Your task to perform on an android device: What's the weather today? Image 0: 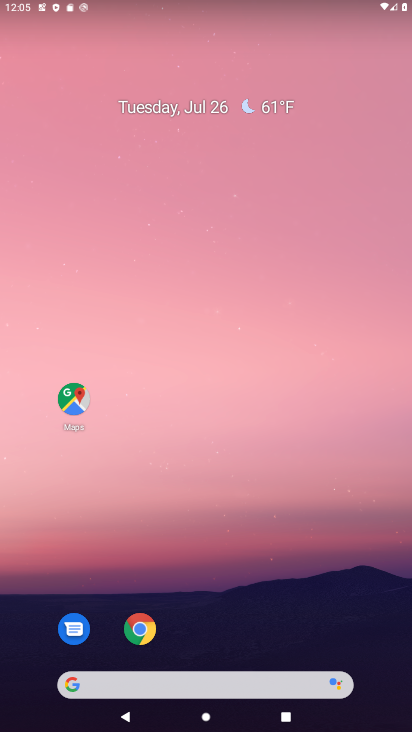
Step 0: drag from (205, 641) to (221, 194)
Your task to perform on an android device: What's the weather today? Image 1: 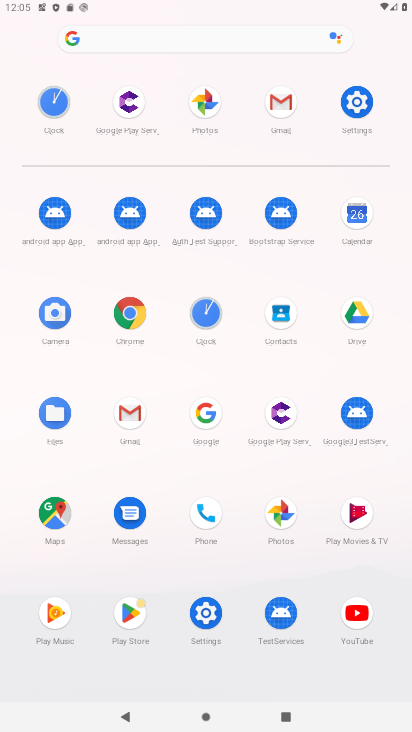
Step 1: click (220, 417)
Your task to perform on an android device: What's the weather today? Image 2: 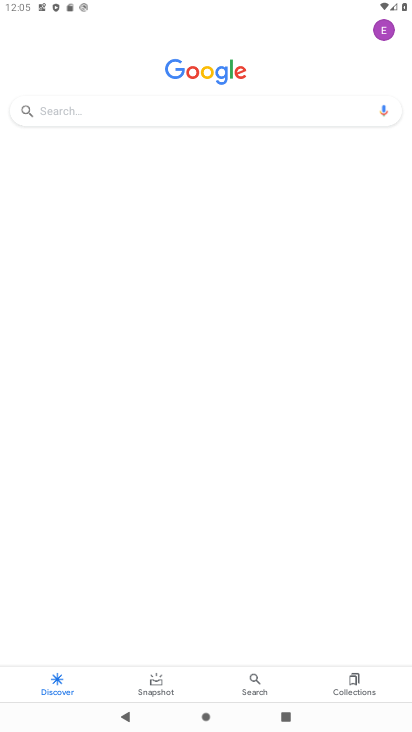
Step 2: click (120, 107)
Your task to perform on an android device: What's the weather today? Image 3: 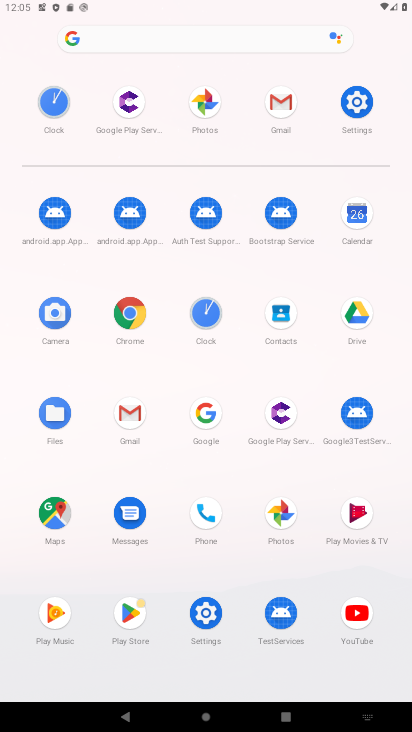
Step 3: click (73, 83)
Your task to perform on an android device: What's the weather today? Image 4: 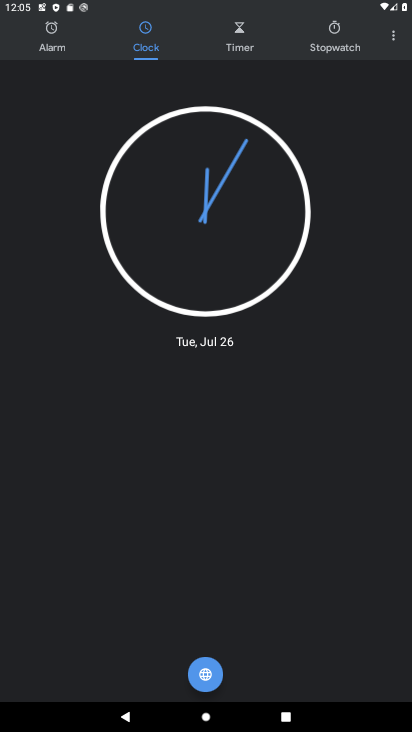
Step 4: press home button
Your task to perform on an android device: What's the weather today? Image 5: 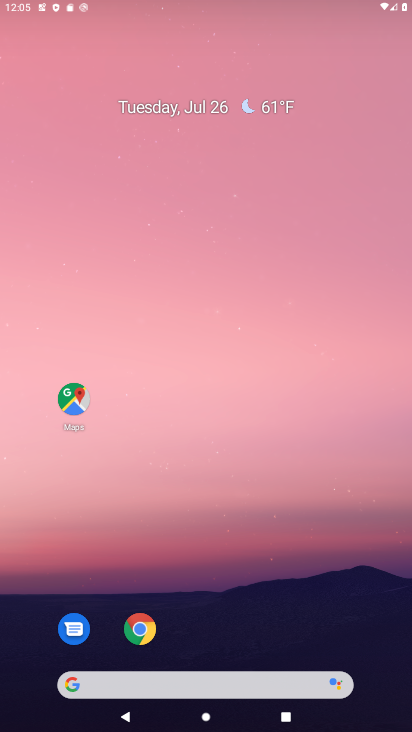
Step 5: drag from (196, 370) to (196, 107)
Your task to perform on an android device: What's the weather today? Image 6: 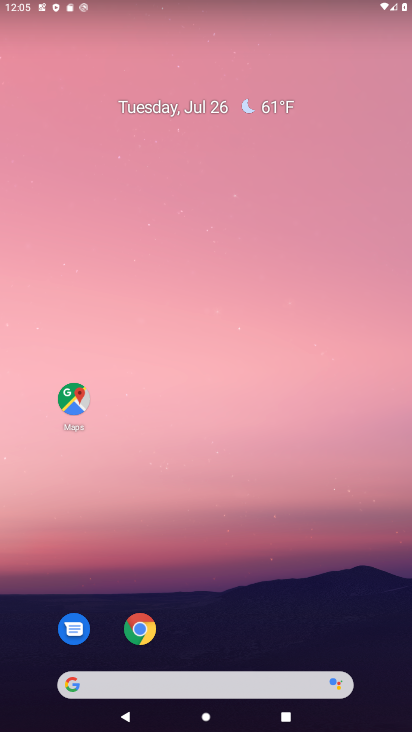
Step 6: drag from (223, 643) to (202, 25)
Your task to perform on an android device: What's the weather today? Image 7: 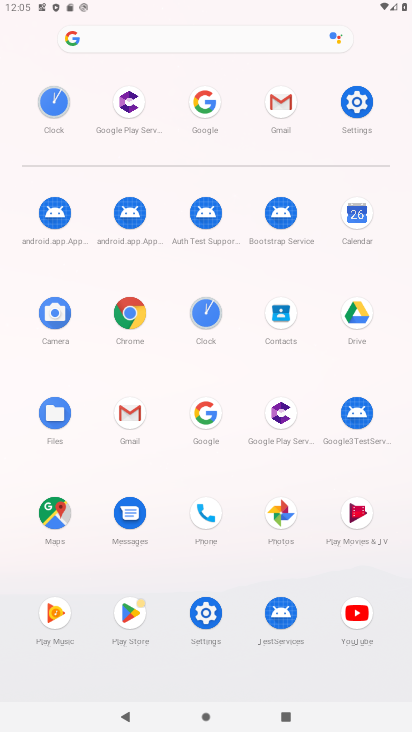
Step 7: click (210, 413)
Your task to perform on an android device: What's the weather today? Image 8: 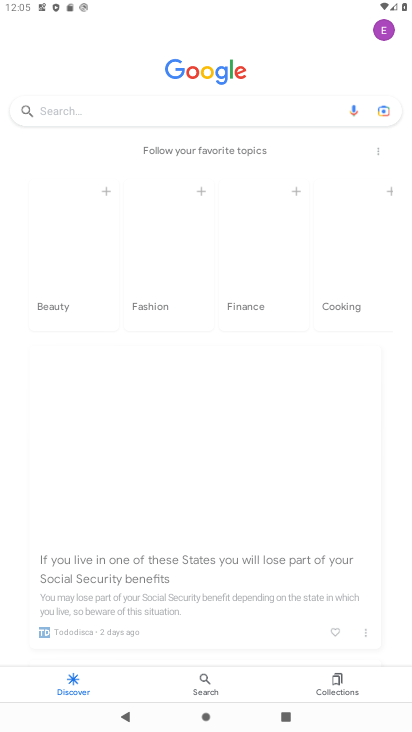
Step 8: click (76, 114)
Your task to perform on an android device: What's the weather today? Image 9: 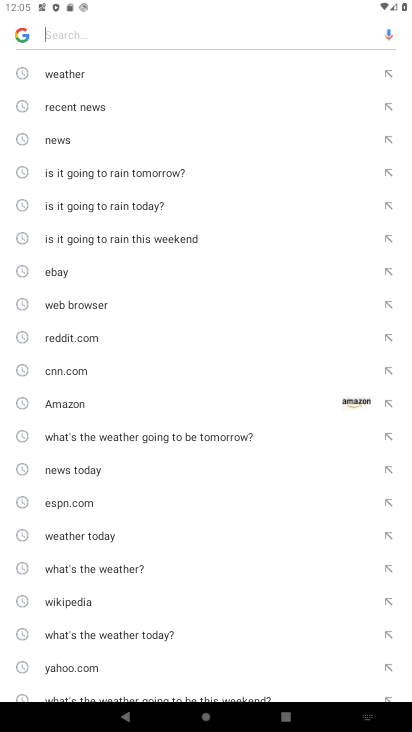
Step 9: click (65, 79)
Your task to perform on an android device: What's the weather today? Image 10: 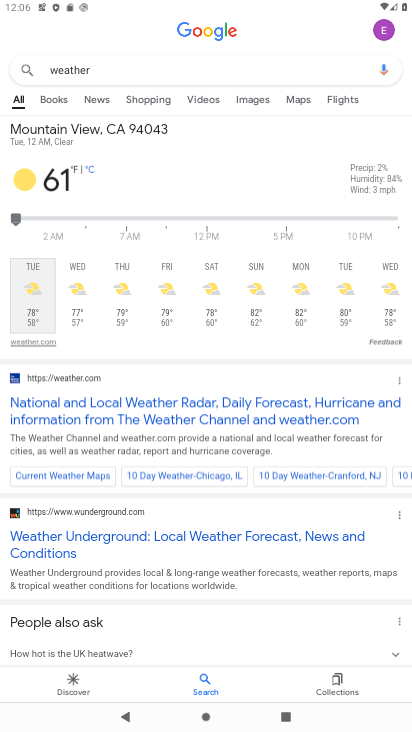
Step 10: task complete